Your task to perform on an android device: Go to network settings Image 0: 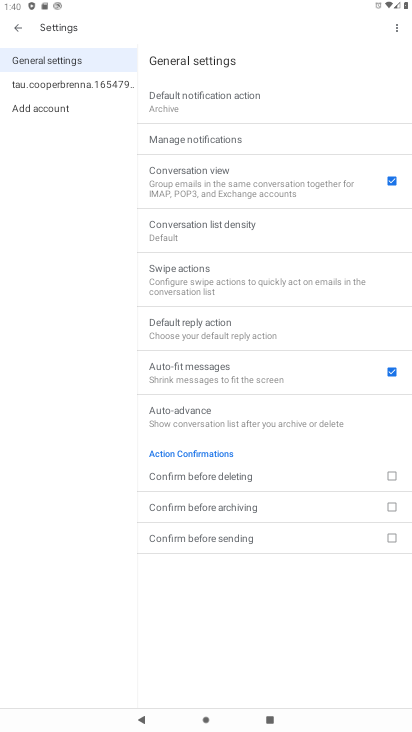
Step 0: press home button
Your task to perform on an android device: Go to network settings Image 1: 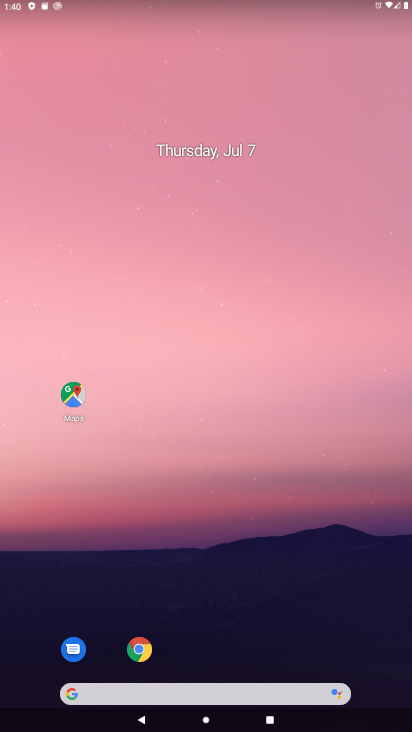
Step 1: drag from (359, 664) to (323, 80)
Your task to perform on an android device: Go to network settings Image 2: 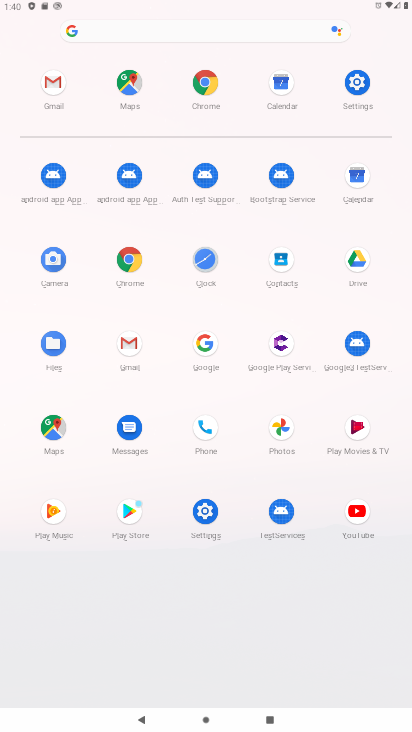
Step 2: click (206, 513)
Your task to perform on an android device: Go to network settings Image 3: 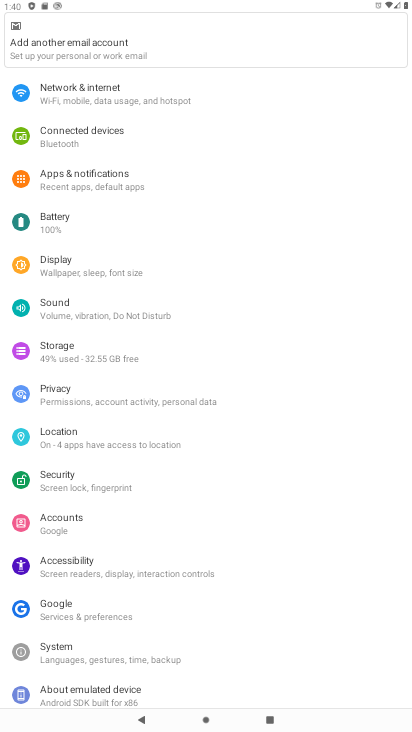
Step 3: click (73, 87)
Your task to perform on an android device: Go to network settings Image 4: 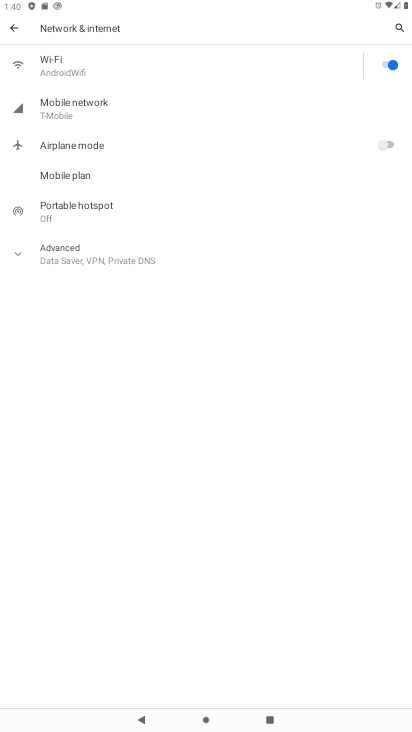
Step 4: click (71, 105)
Your task to perform on an android device: Go to network settings Image 5: 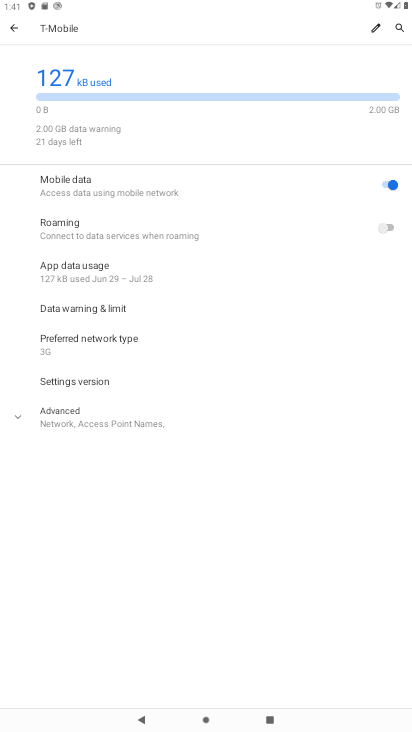
Step 5: task complete